Your task to perform on an android device: turn off notifications in google photos Image 0: 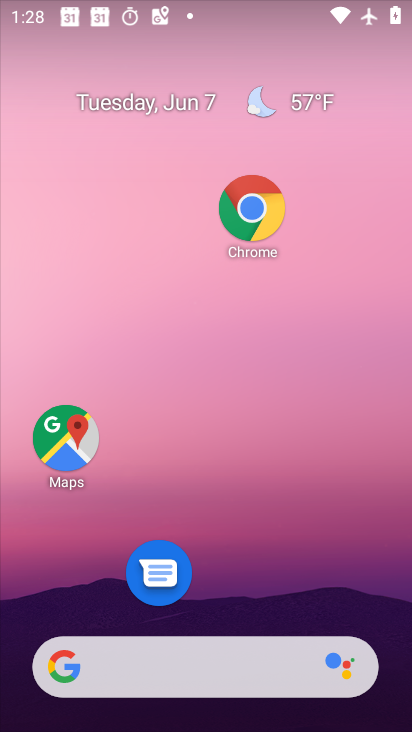
Step 0: drag from (217, 577) to (198, 139)
Your task to perform on an android device: turn off notifications in google photos Image 1: 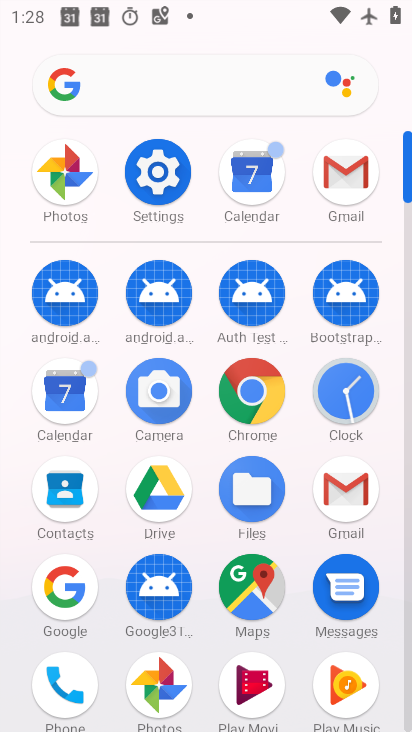
Step 1: click (78, 175)
Your task to perform on an android device: turn off notifications in google photos Image 2: 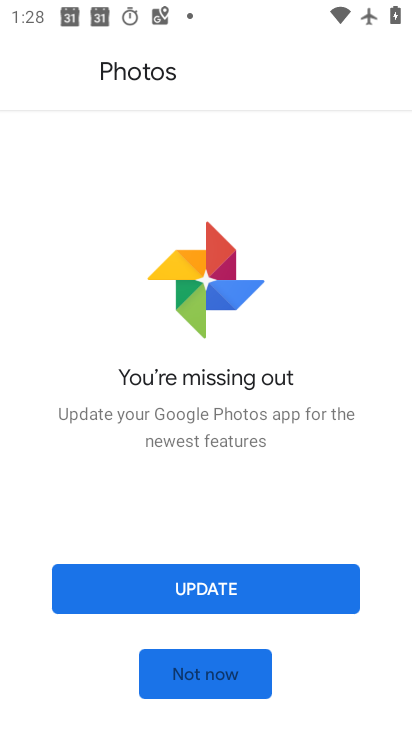
Step 2: click (189, 655)
Your task to perform on an android device: turn off notifications in google photos Image 3: 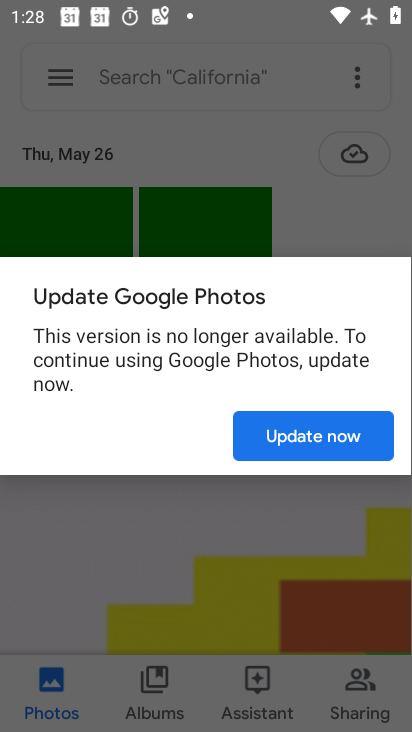
Step 3: click (292, 446)
Your task to perform on an android device: turn off notifications in google photos Image 4: 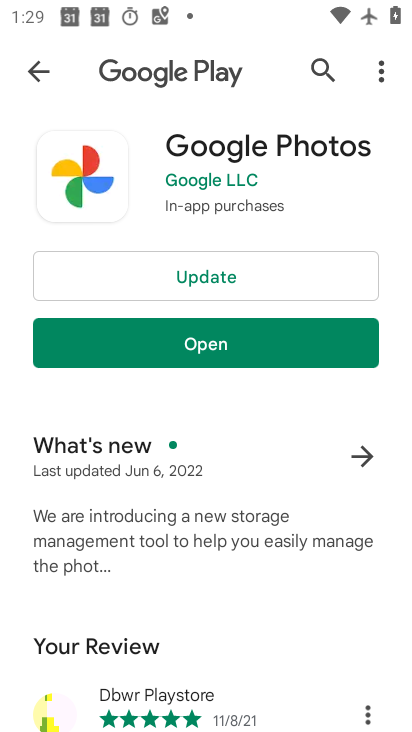
Step 4: click (212, 348)
Your task to perform on an android device: turn off notifications in google photos Image 5: 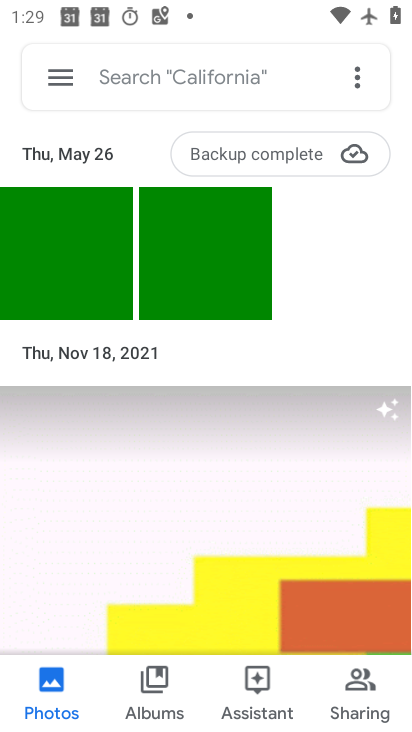
Step 5: click (55, 77)
Your task to perform on an android device: turn off notifications in google photos Image 6: 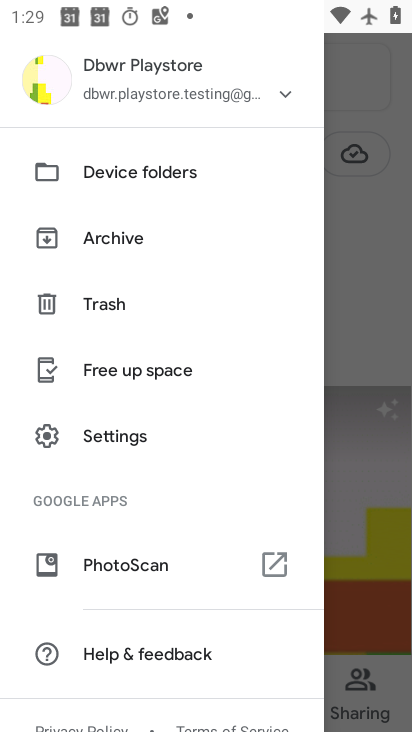
Step 6: click (87, 419)
Your task to perform on an android device: turn off notifications in google photos Image 7: 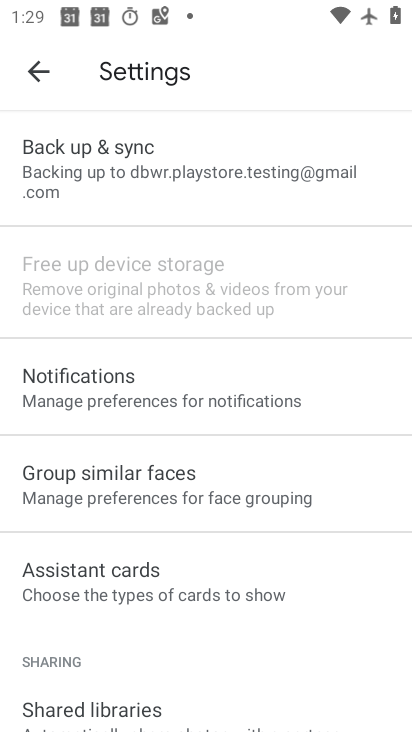
Step 7: click (92, 383)
Your task to perform on an android device: turn off notifications in google photos Image 8: 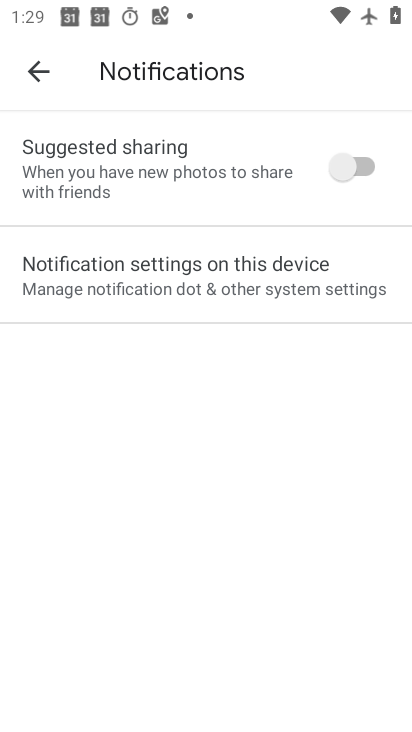
Step 8: click (235, 259)
Your task to perform on an android device: turn off notifications in google photos Image 9: 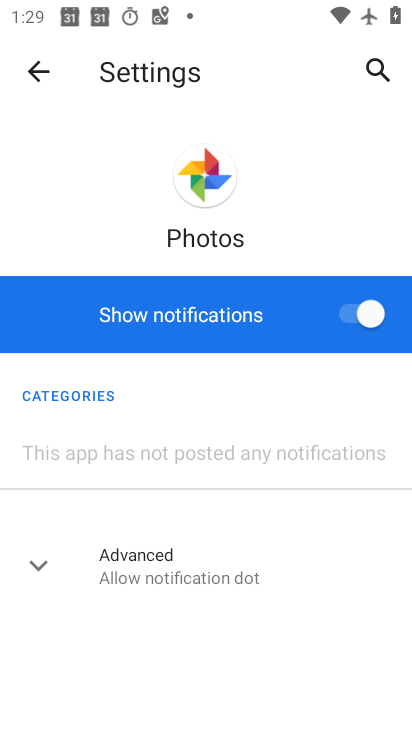
Step 9: click (343, 307)
Your task to perform on an android device: turn off notifications in google photos Image 10: 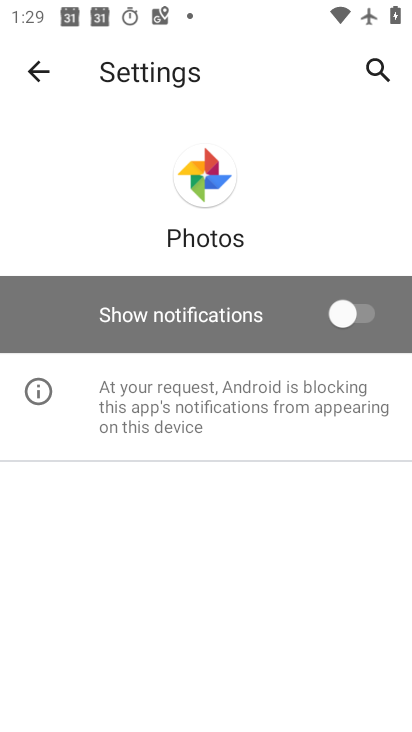
Step 10: task complete